Your task to perform on an android device: Open my contact list Image 0: 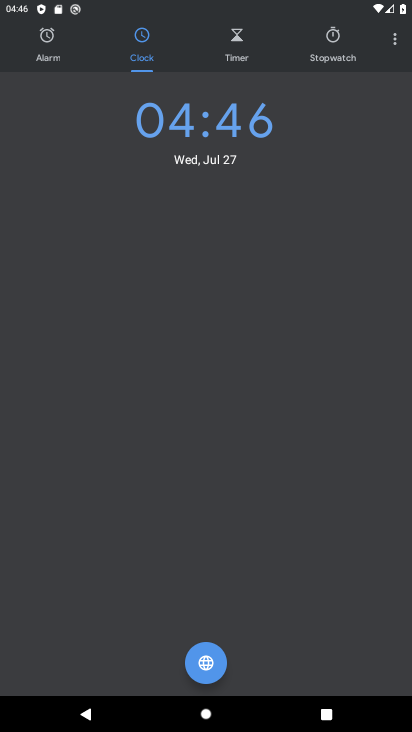
Step 0: press home button
Your task to perform on an android device: Open my contact list Image 1: 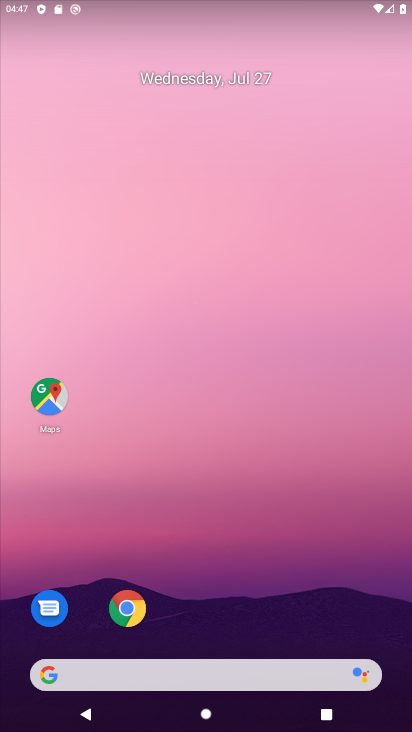
Step 1: click (223, 620)
Your task to perform on an android device: Open my contact list Image 2: 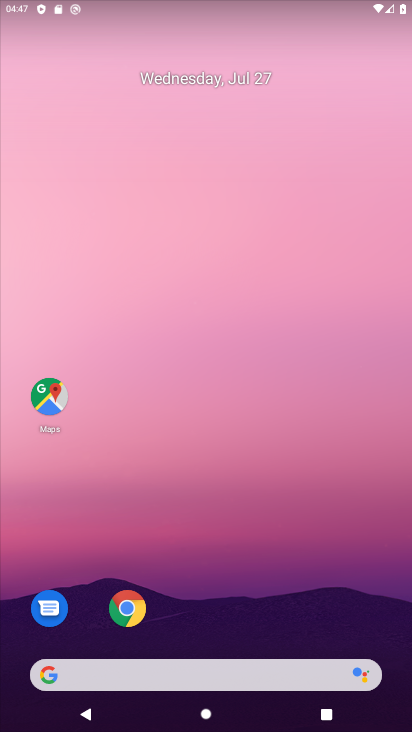
Step 2: drag from (223, 620) to (274, 280)
Your task to perform on an android device: Open my contact list Image 3: 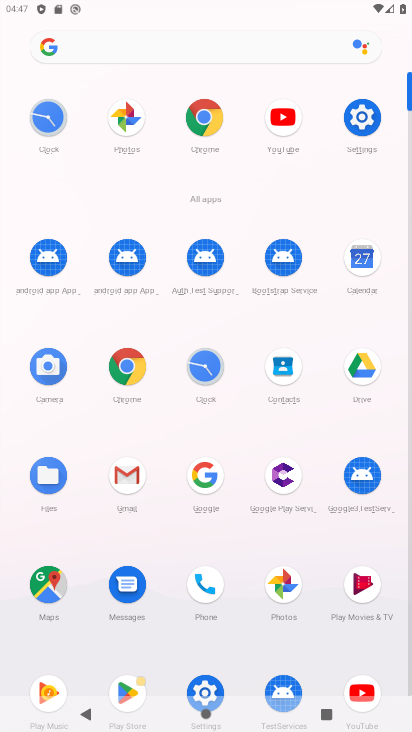
Step 3: click (299, 367)
Your task to perform on an android device: Open my contact list Image 4: 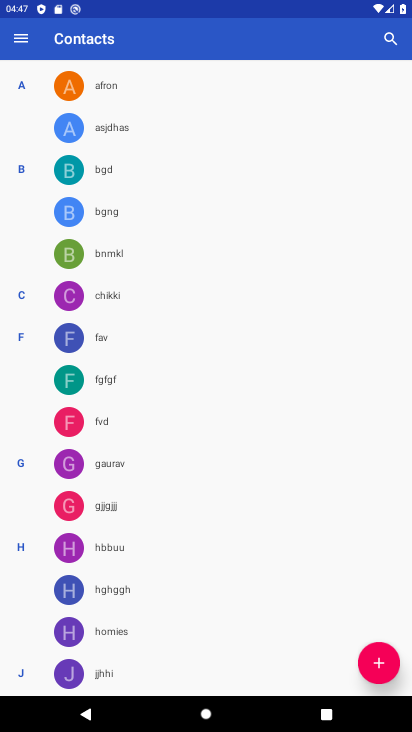
Step 4: task complete